Your task to perform on an android device: empty trash in the gmail app Image 0: 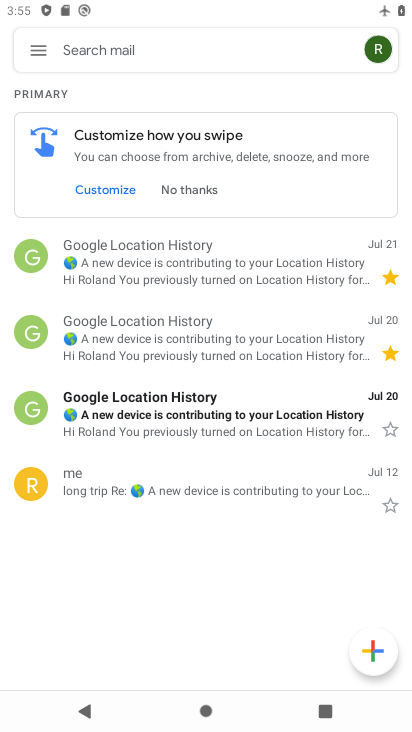
Step 0: click (39, 55)
Your task to perform on an android device: empty trash in the gmail app Image 1: 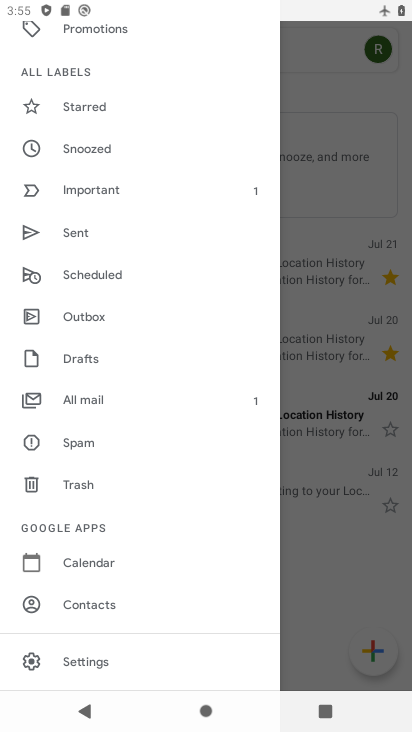
Step 1: click (119, 482)
Your task to perform on an android device: empty trash in the gmail app Image 2: 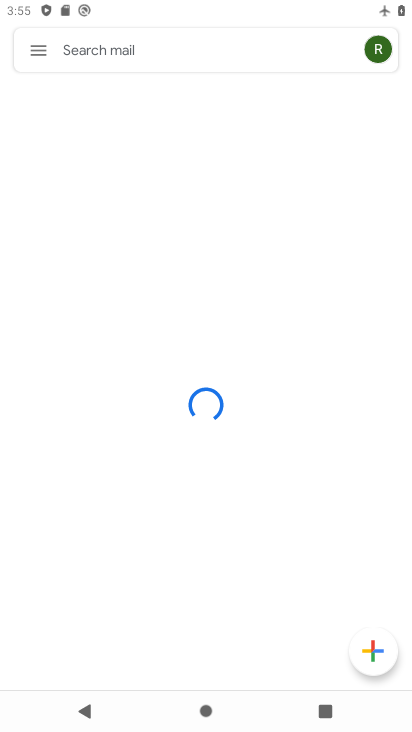
Step 2: click (70, 603)
Your task to perform on an android device: empty trash in the gmail app Image 3: 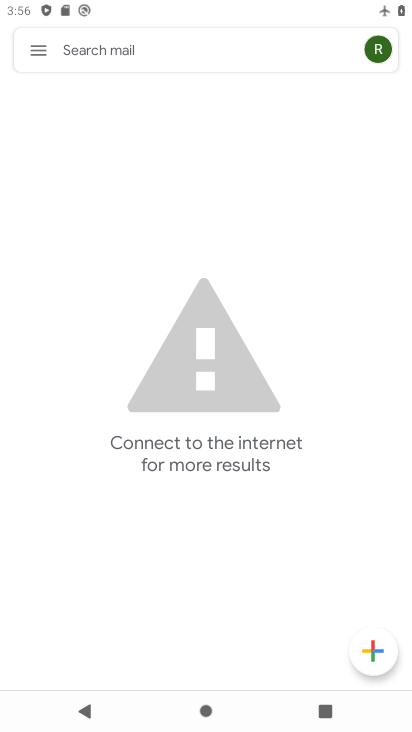
Step 3: click (35, 61)
Your task to perform on an android device: empty trash in the gmail app Image 4: 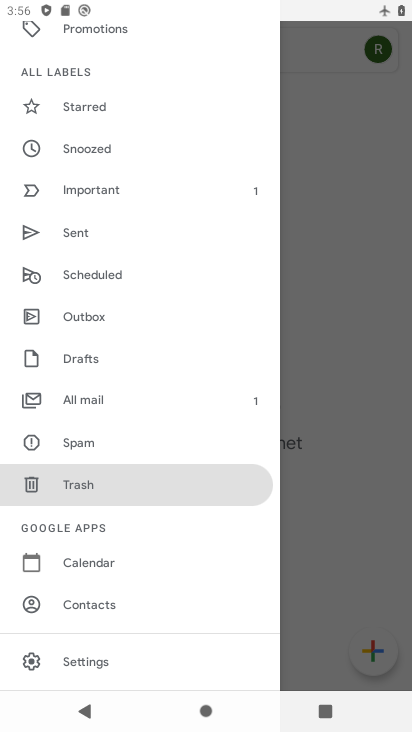
Step 4: click (126, 500)
Your task to perform on an android device: empty trash in the gmail app Image 5: 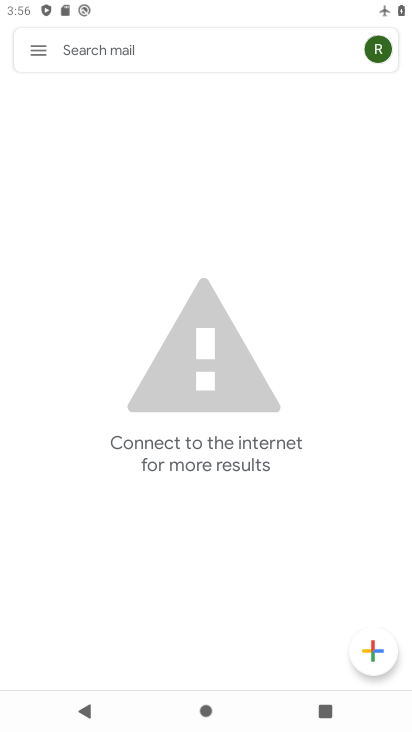
Step 5: task complete